Your task to perform on an android device: change timer sound Image 0: 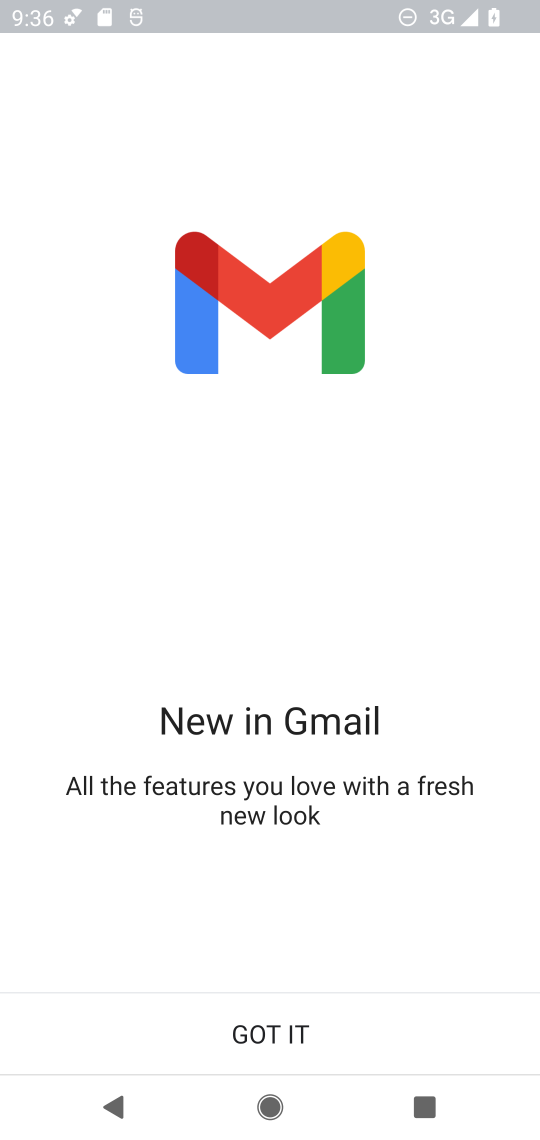
Step 0: press home button
Your task to perform on an android device: change timer sound Image 1: 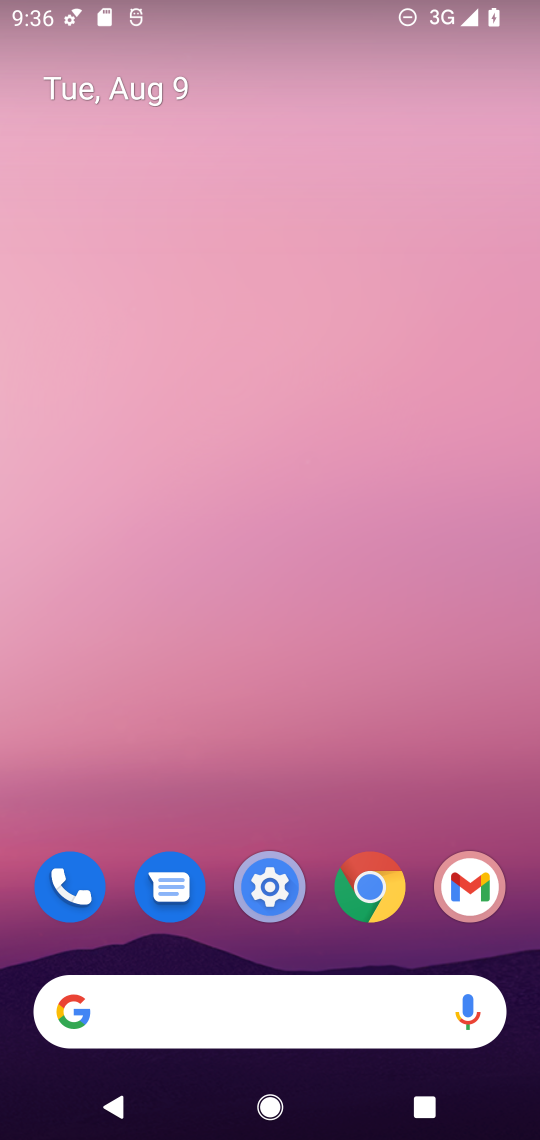
Step 1: drag from (223, 827) to (208, 349)
Your task to perform on an android device: change timer sound Image 2: 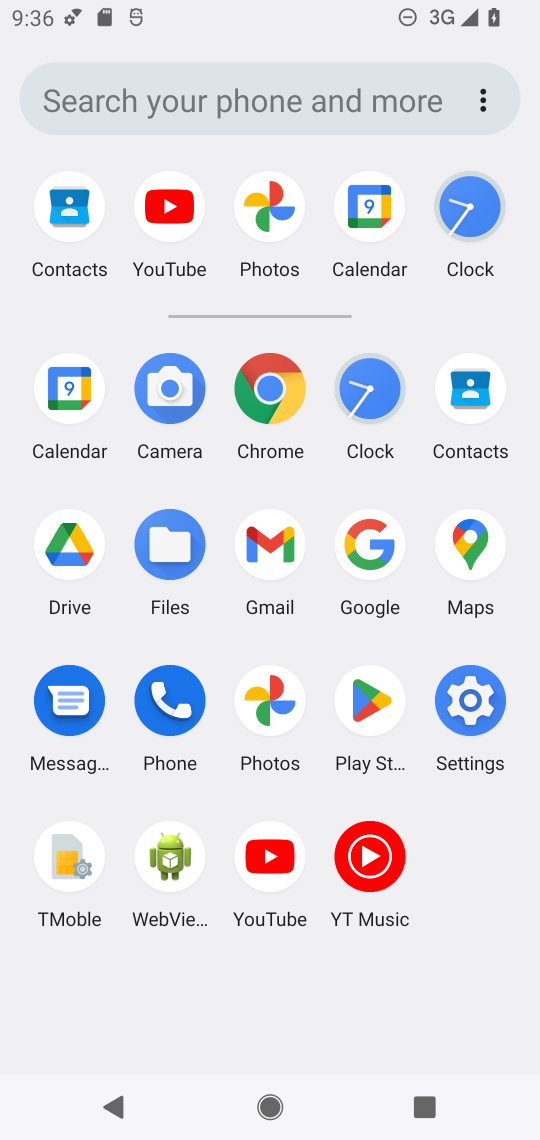
Step 2: click (467, 225)
Your task to perform on an android device: change timer sound Image 3: 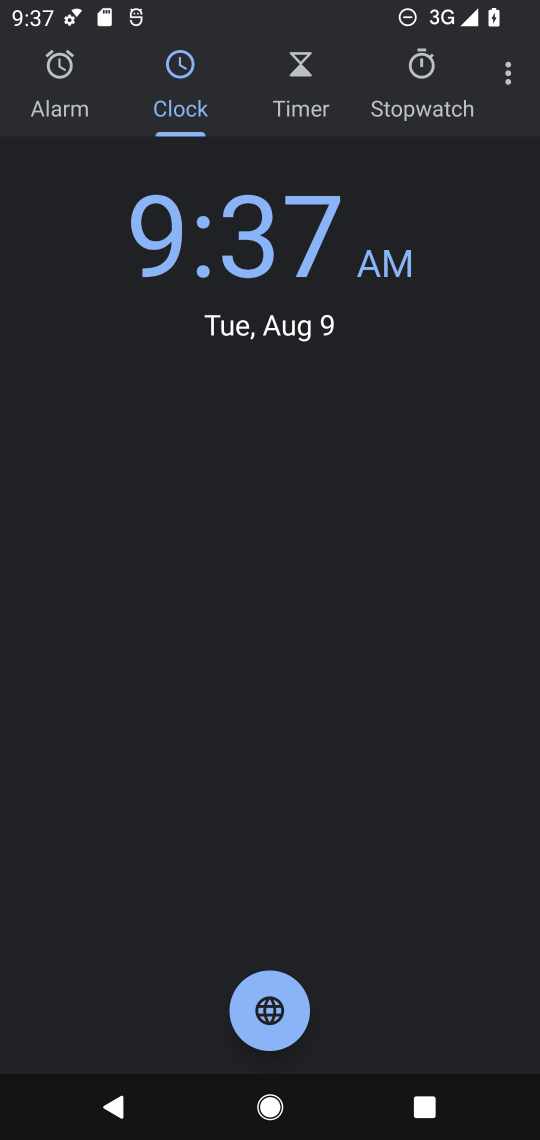
Step 3: click (505, 82)
Your task to perform on an android device: change timer sound Image 4: 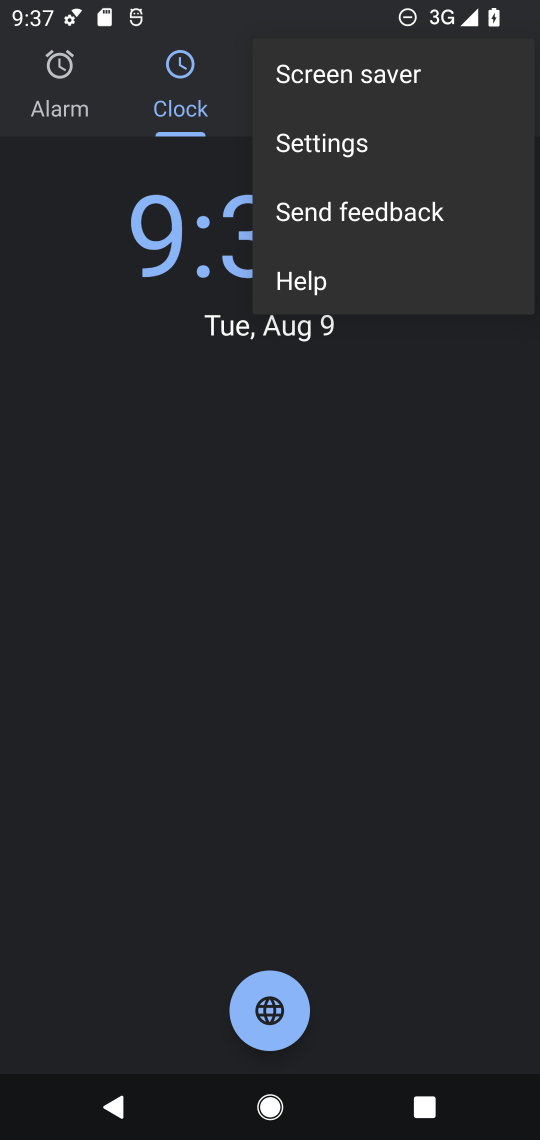
Step 4: click (393, 134)
Your task to perform on an android device: change timer sound Image 5: 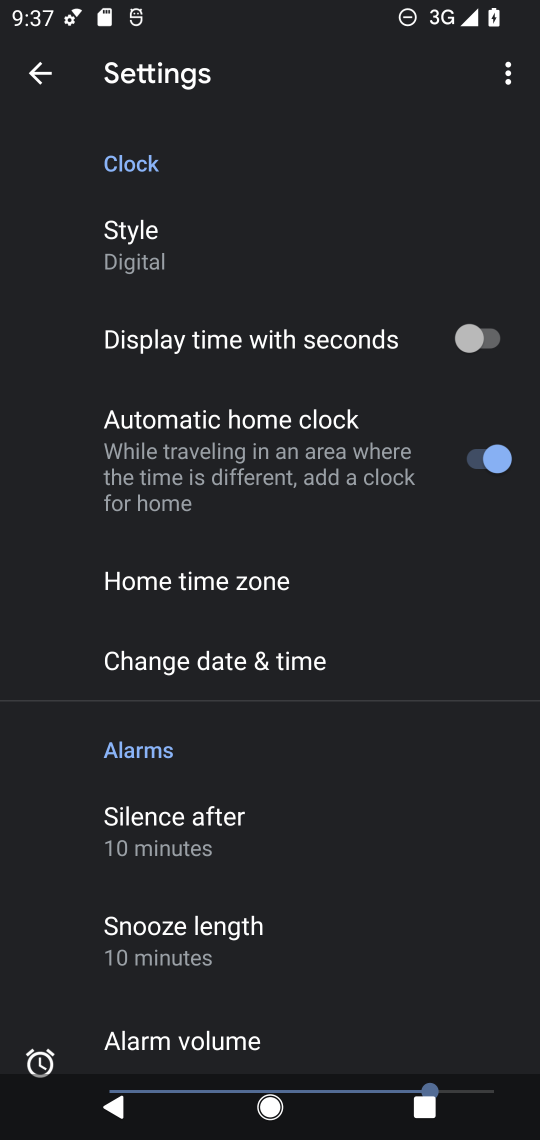
Step 5: drag from (308, 885) to (323, 484)
Your task to perform on an android device: change timer sound Image 6: 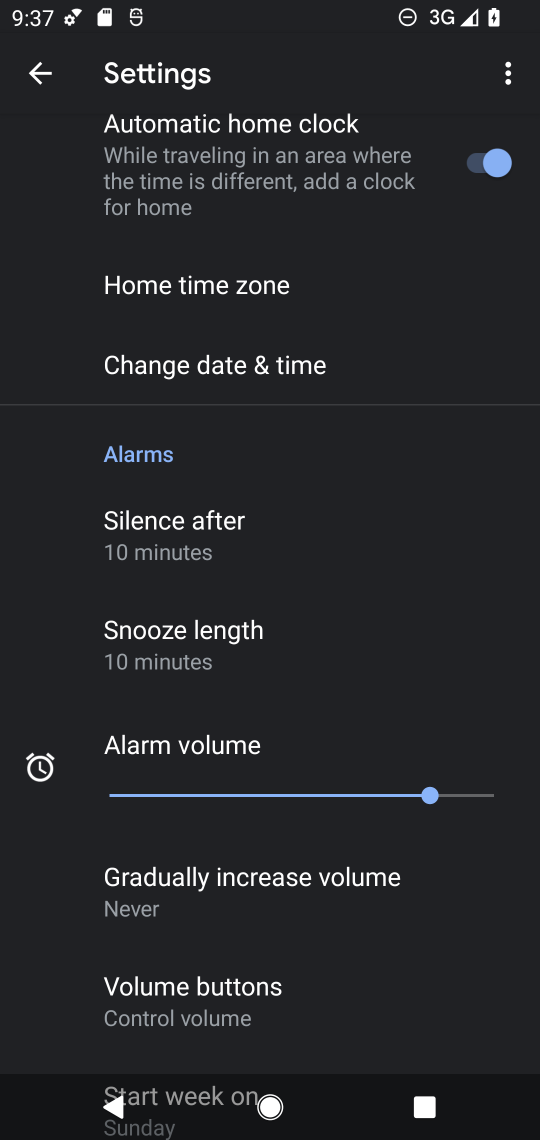
Step 6: drag from (327, 907) to (326, 465)
Your task to perform on an android device: change timer sound Image 7: 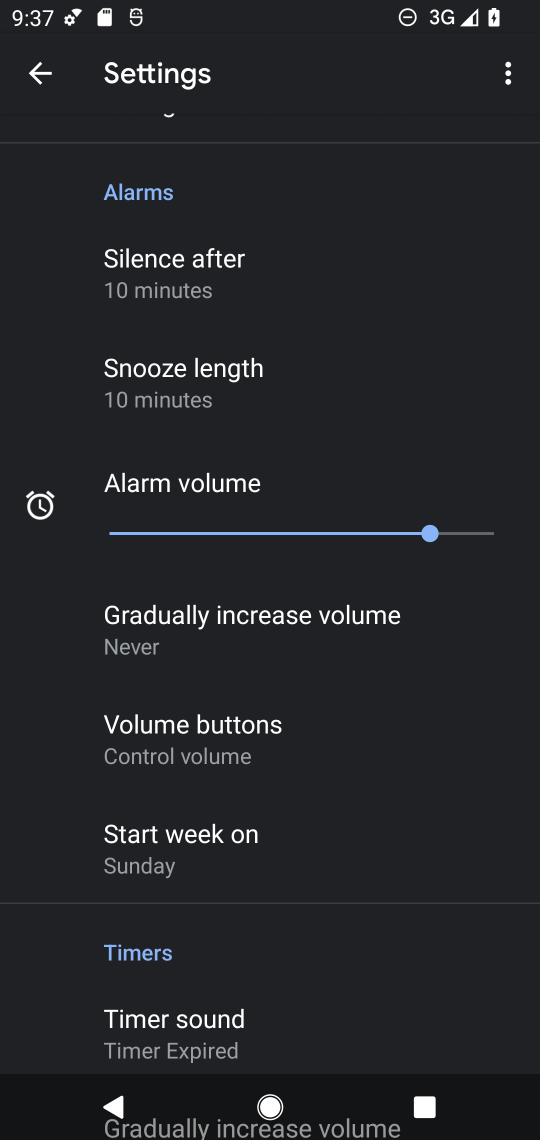
Step 7: click (306, 1012)
Your task to perform on an android device: change timer sound Image 8: 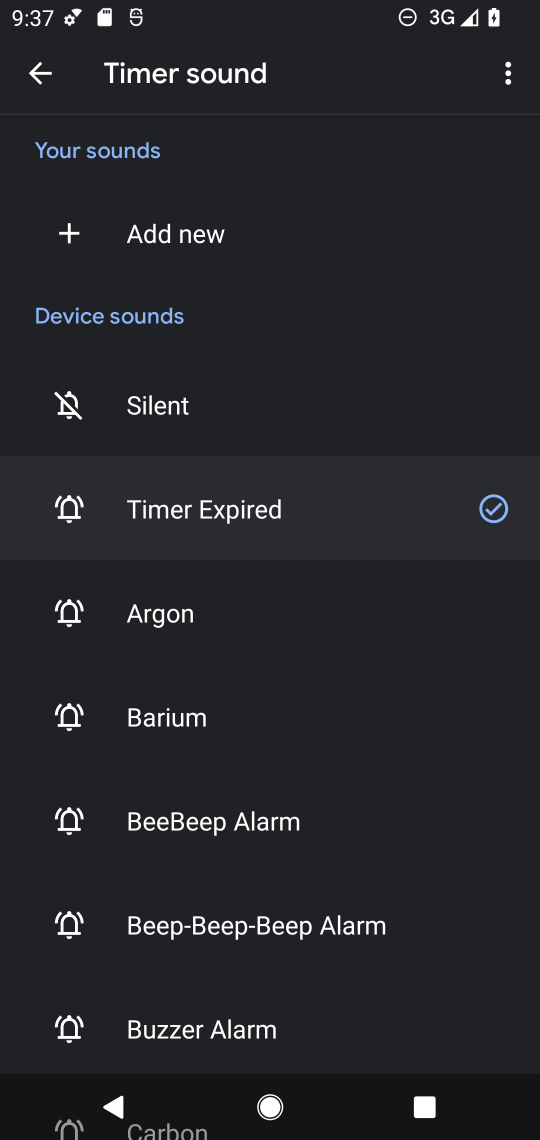
Step 8: click (257, 787)
Your task to perform on an android device: change timer sound Image 9: 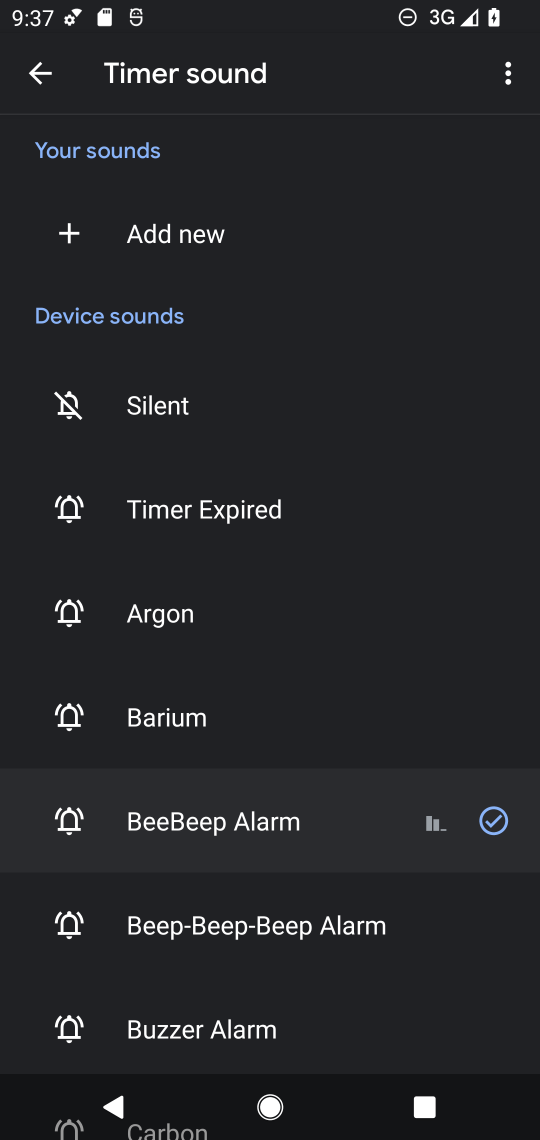
Step 9: task complete